Your task to perform on an android device: turn on location history Image 0: 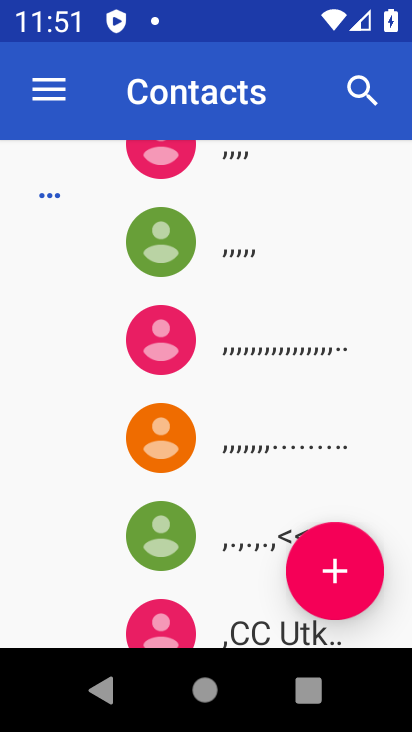
Step 0: press home button
Your task to perform on an android device: turn on location history Image 1: 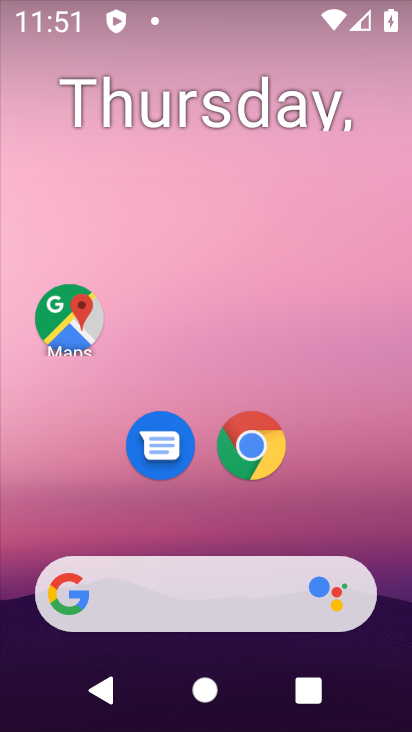
Step 1: drag from (193, 556) to (241, 59)
Your task to perform on an android device: turn on location history Image 2: 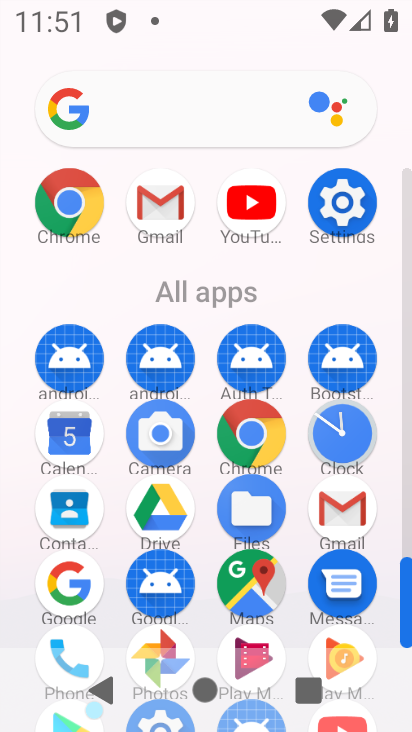
Step 2: drag from (160, 624) to (248, 278)
Your task to perform on an android device: turn on location history Image 3: 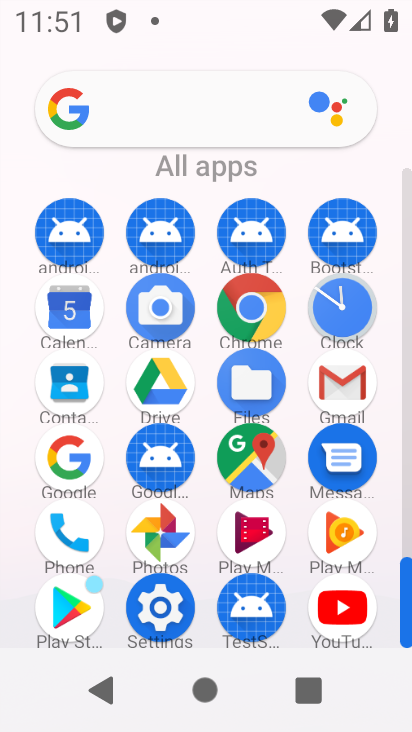
Step 3: click (153, 594)
Your task to perform on an android device: turn on location history Image 4: 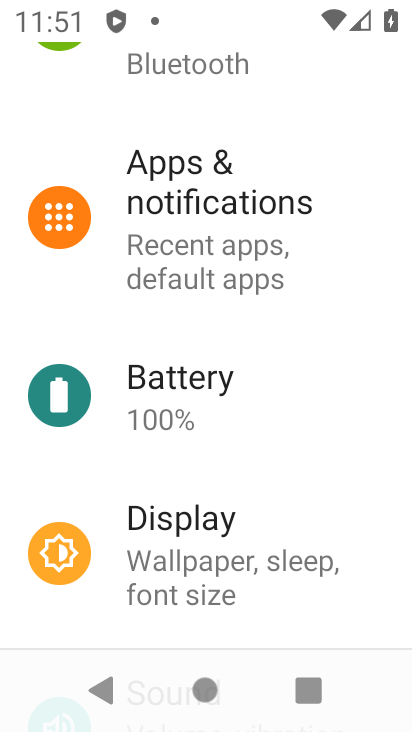
Step 4: drag from (195, 604) to (270, 293)
Your task to perform on an android device: turn on location history Image 5: 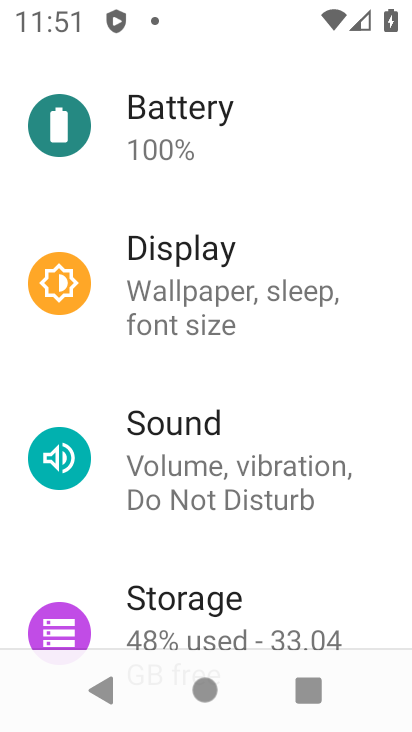
Step 5: drag from (141, 623) to (232, 188)
Your task to perform on an android device: turn on location history Image 6: 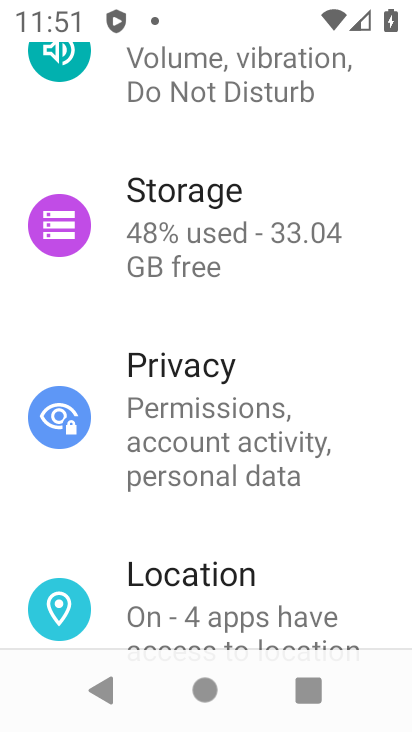
Step 6: click (200, 564)
Your task to perform on an android device: turn on location history Image 7: 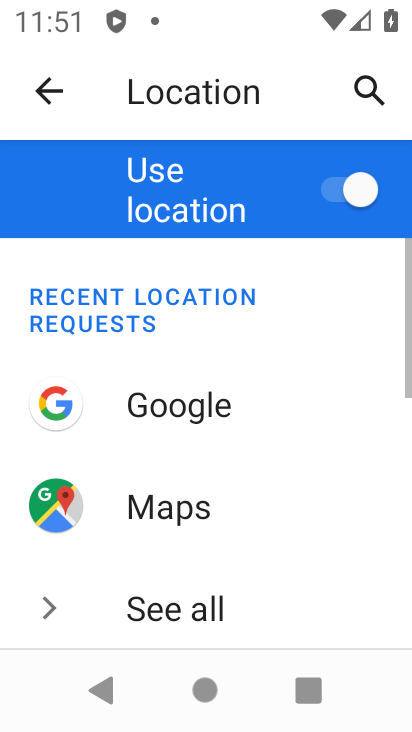
Step 7: drag from (205, 646) to (306, 212)
Your task to perform on an android device: turn on location history Image 8: 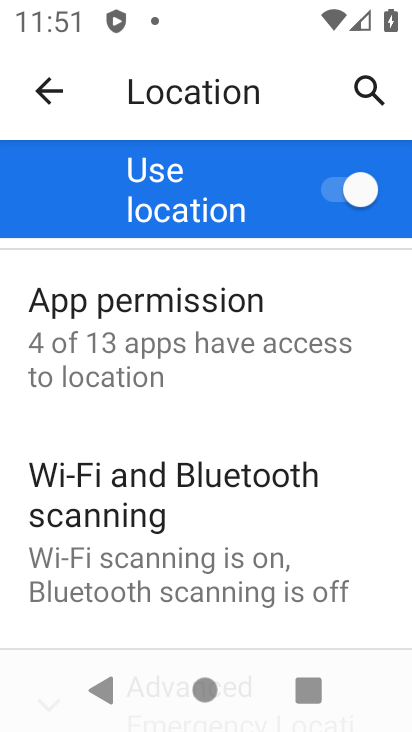
Step 8: drag from (194, 601) to (277, 270)
Your task to perform on an android device: turn on location history Image 9: 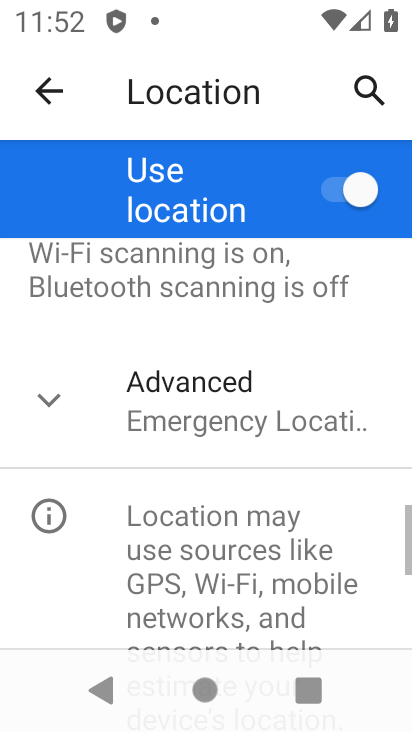
Step 9: click (225, 412)
Your task to perform on an android device: turn on location history Image 10: 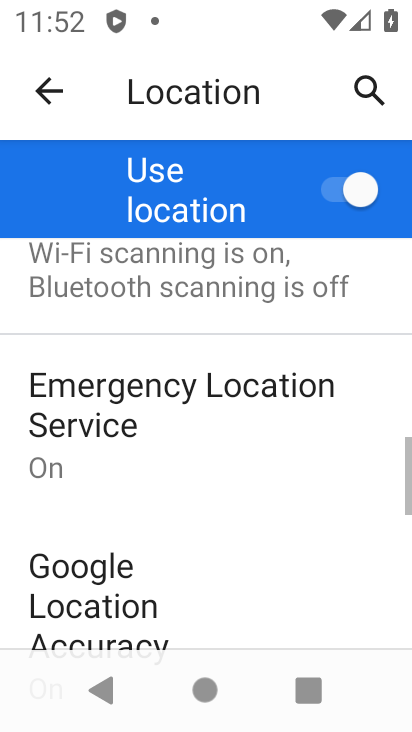
Step 10: drag from (178, 607) to (266, 224)
Your task to perform on an android device: turn on location history Image 11: 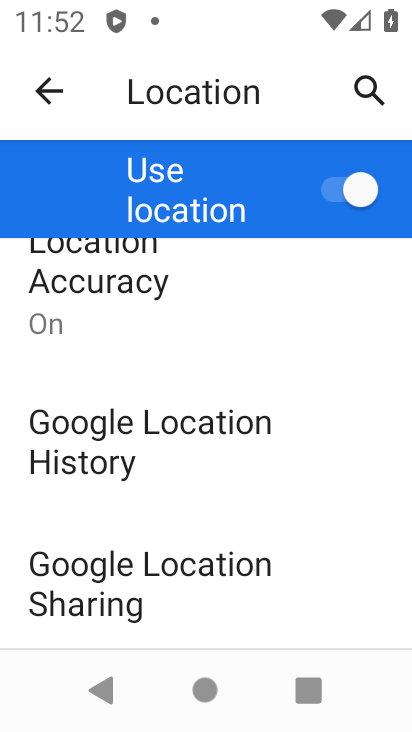
Step 11: drag from (161, 660) to (224, 559)
Your task to perform on an android device: turn on location history Image 12: 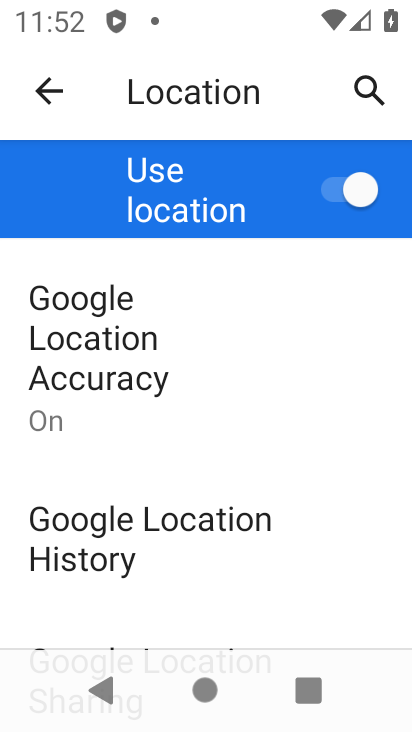
Step 12: click (260, 532)
Your task to perform on an android device: turn on location history Image 13: 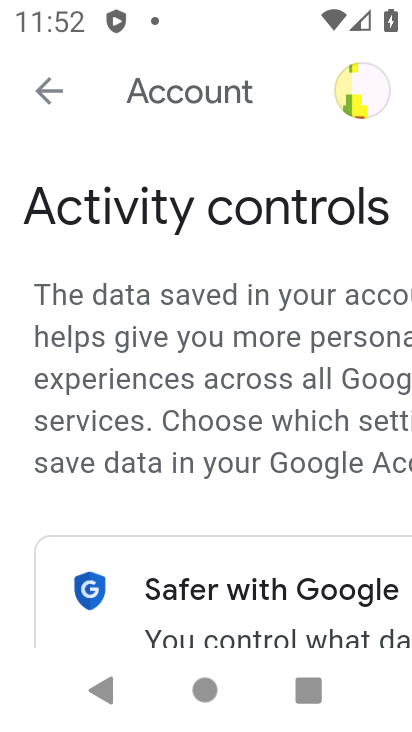
Step 13: task complete